Your task to perform on an android device: turn off priority inbox in the gmail app Image 0: 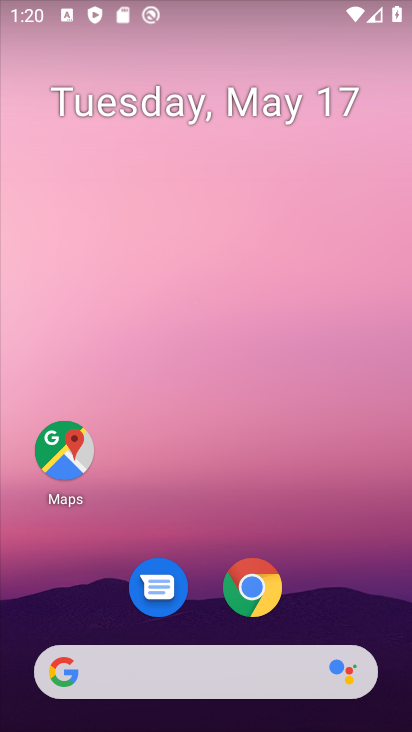
Step 0: drag from (253, 216) to (256, 93)
Your task to perform on an android device: turn off priority inbox in the gmail app Image 1: 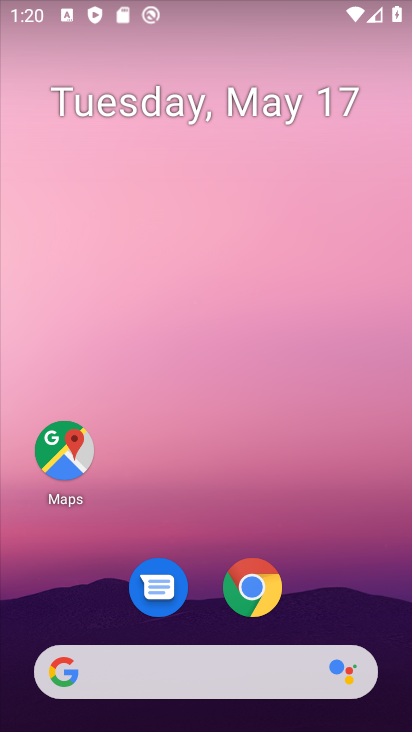
Step 1: drag from (207, 588) to (229, 119)
Your task to perform on an android device: turn off priority inbox in the gmail app Image 2: 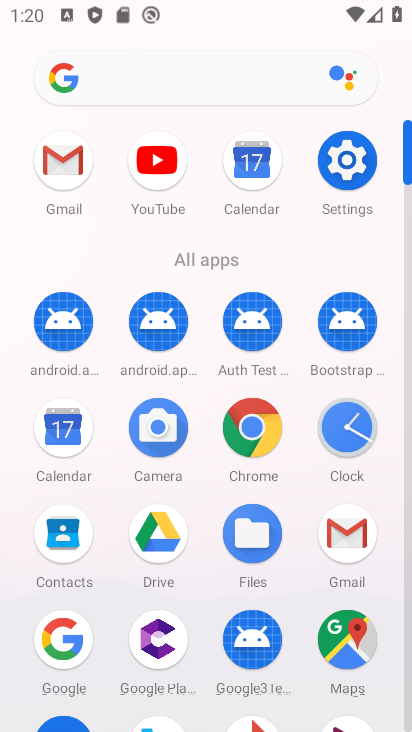
Step 2: click (338, 512)
Your task to perform on an android device: turn off priority inbox in the gmail app Image 3: 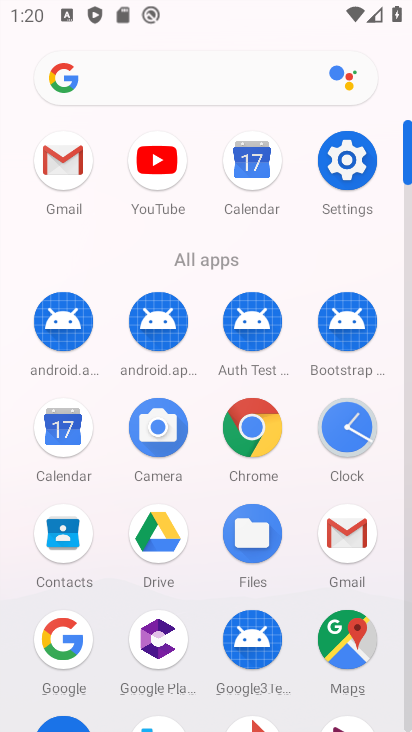
Step 3: click (338, 512)
Your task to perform on an android device: turn off priority inbox in the gmail app Image 4: 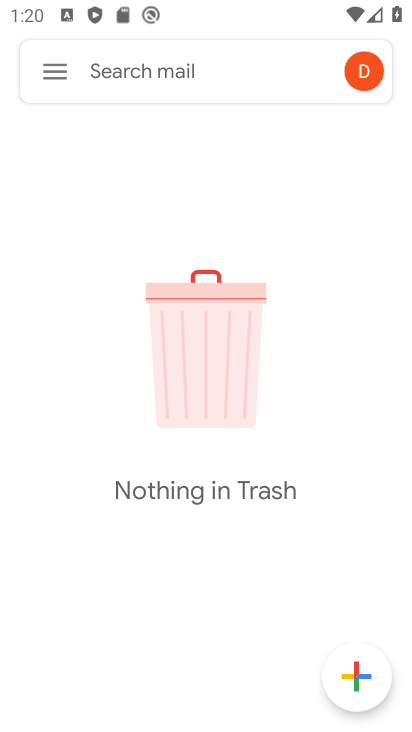
Step 4: click (56, 68)
Your task to perform on an android device: turn off priority inbox in the gmail app Image 5: 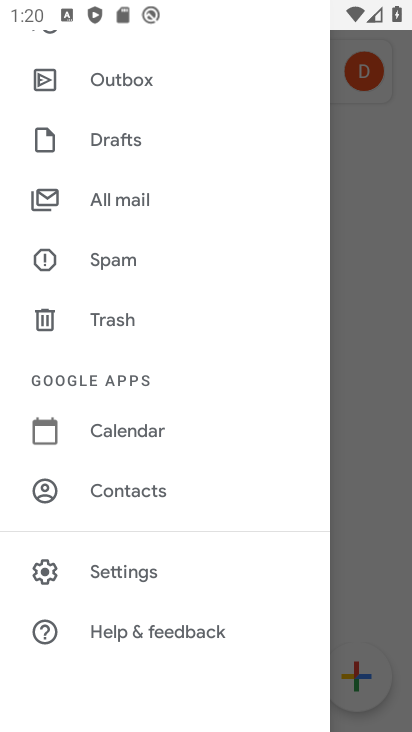
Step 5: click (133, 572)
Your task to perform on an android device: turn off priority inbox in the gmail app Image 6: 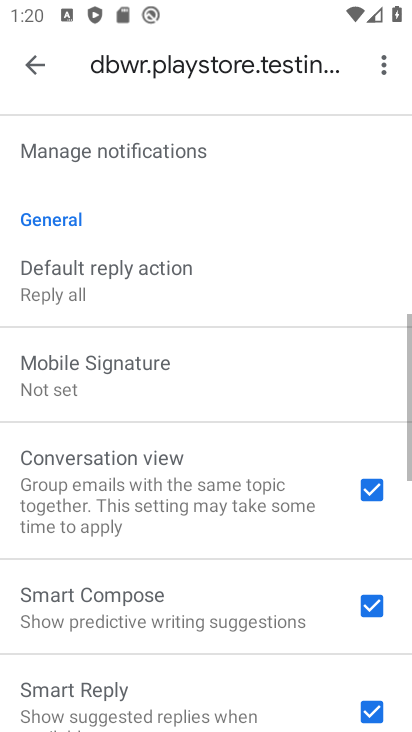
Step 6: drag from (180, 269) to (223, 631)
Your task to perform on an android device: turn off priority inbox in the gmail app Image 7: 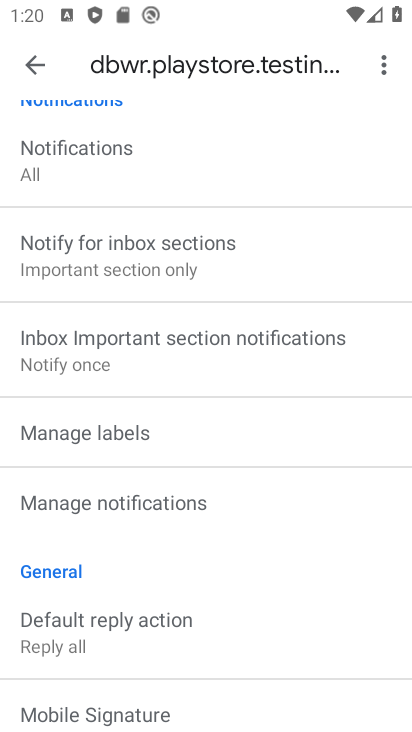
Step 7: drag from (205, 288) to (284, 727)
Your task to perform on an android device: turn off priority inbox in the gmail app Image 8: 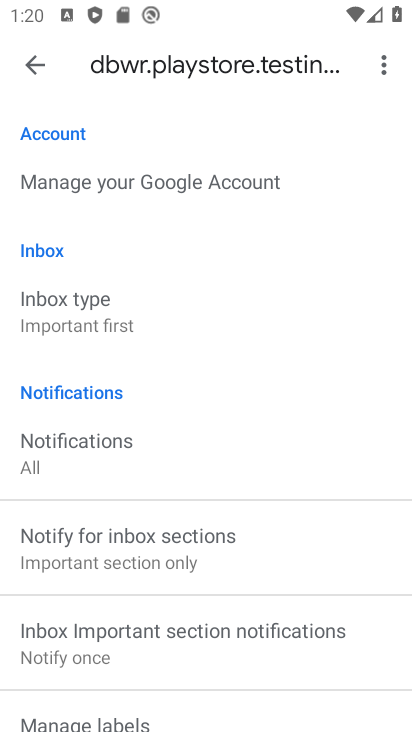
Step 8: drag from (154, 411) to (242, 690)
Your task to perform on an android device: turn off priority inbox in the gmail app Image 9: 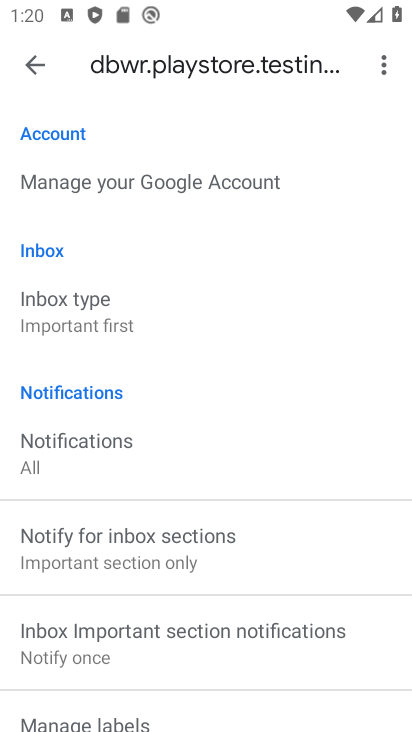
Step 9: click (137, 323)
Your task to perform on an android device: turn off priority inbox in the gmail app Image 10: 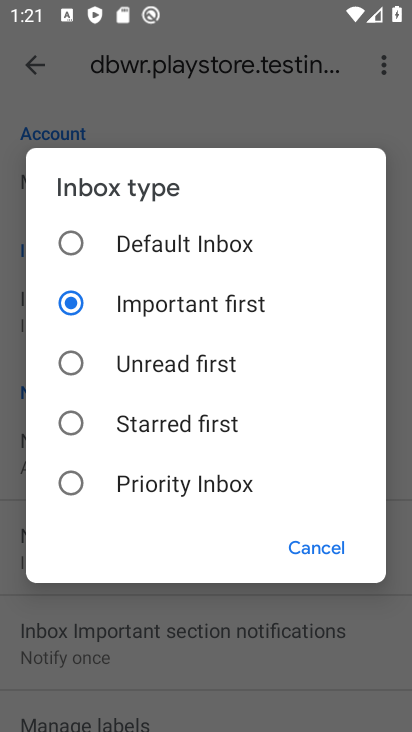
Step 10: click (70, 491)
Your task to perform on an android device: turn off priority inbox in the gmail app Image 11: 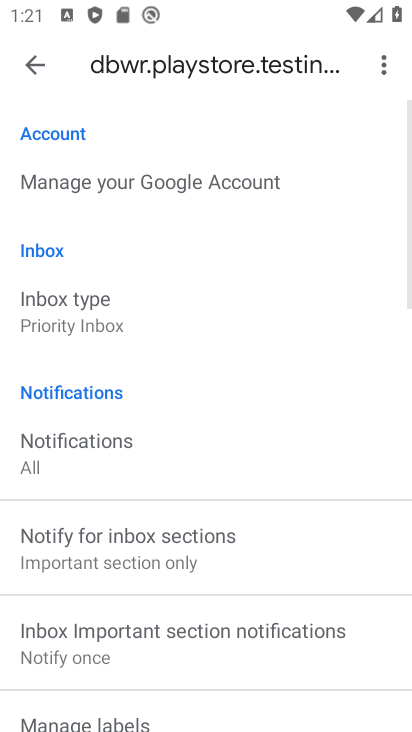
Step 11: click (130, 326)
Your task to perform on an android device: turn off priority inbox in the gmail app Image 12: 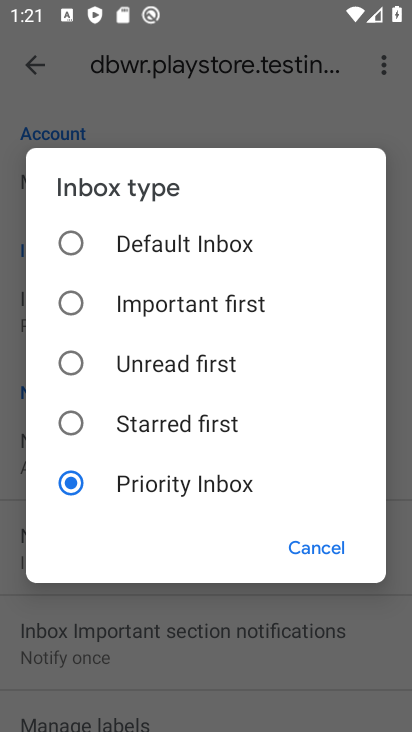
Step 12: click (86, 247)
Your task to perform on an android device: turn off priority inbox in the gmail app Image 13: 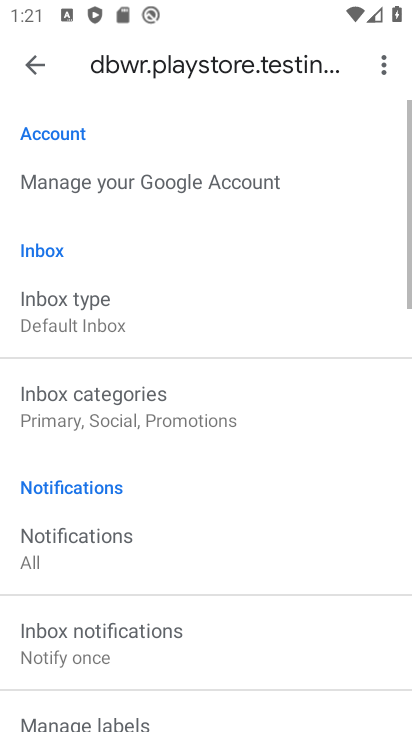
Step 13: task complete